Your task to perform on an android device: Open calendar and show me the second week of next month Image 0: 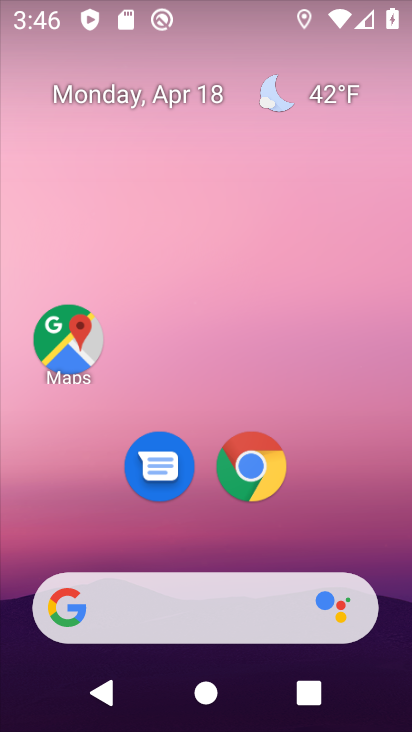
Step 0: drag from (399, 594) to (355, 172)
Your task to perform on an android device: Open calendar and show me the second week of next month Image 1: 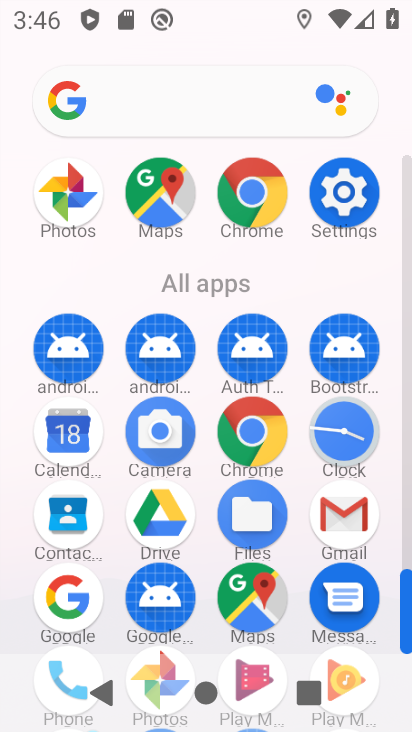
Step 1: click (66, 427)
Your task to perform on an android device: Open calendar and show me the second week of next month Image 2: 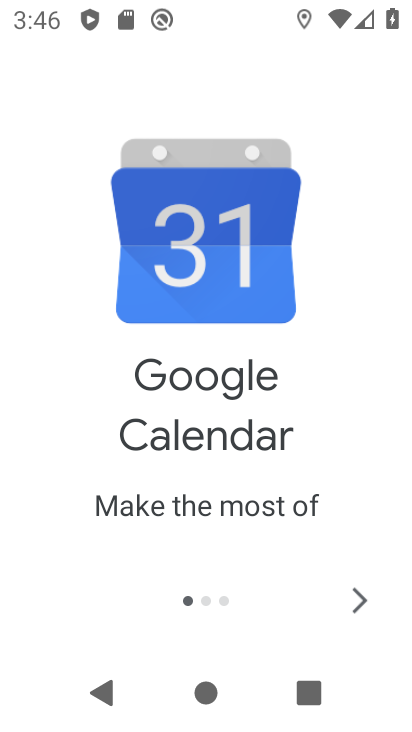
Step 2: click (359, 597)
Your task to perform on an android device: Open calendar and show me the second week of next month Image 3: 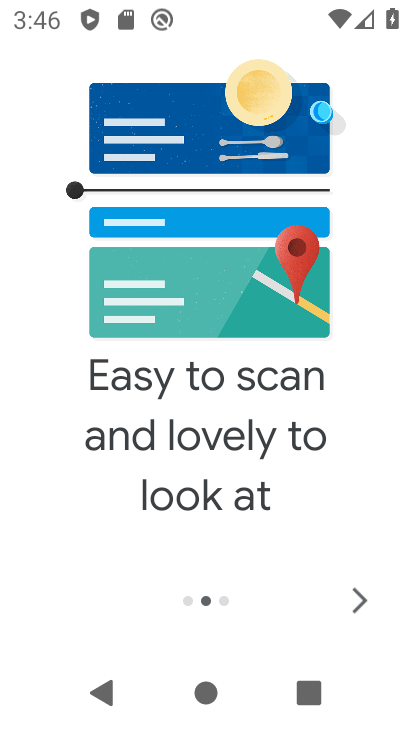
Step 3: click (359, 597)
Your task to perform on an android device: Open calendar and show me the second week of next month Image 4: 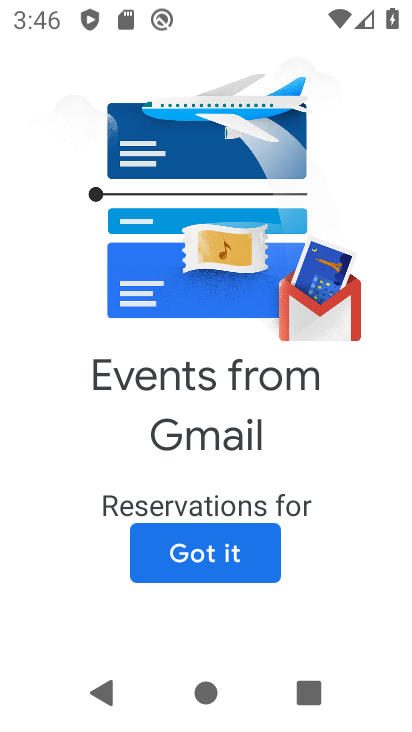
Step 4: click (190, 554)
Your task to perform on an android device: Open calendar and show me the second week of next month Image 5: 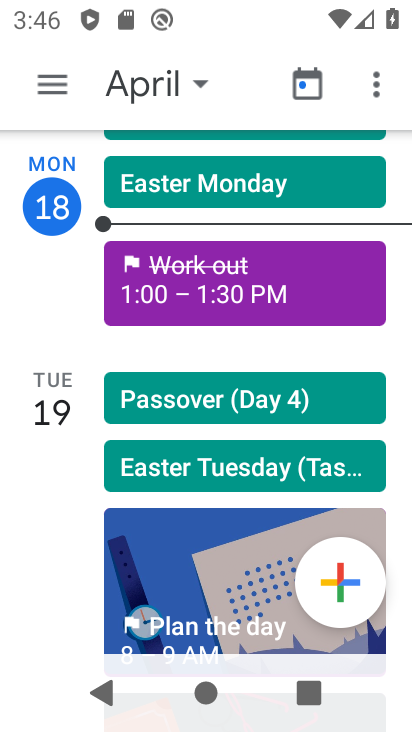
Step 5: click (52, 84)
Your task to perform on an android device: Open calendar and show me the second week of next month Image 6: 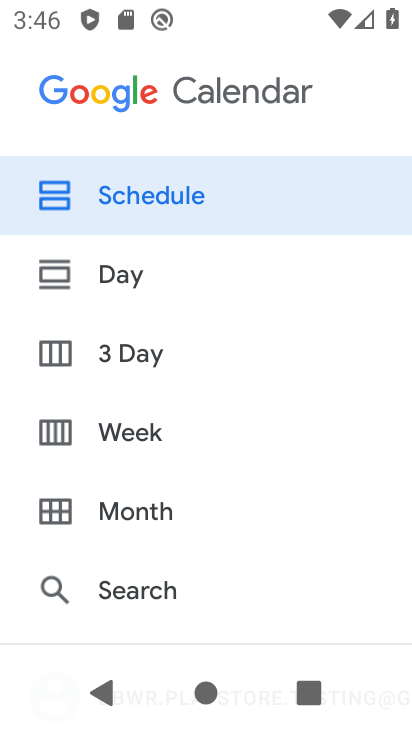
Step 6: click (123, 430)
Your task to perform on an android device: Open calendar and show me the second week of next month Image 7: 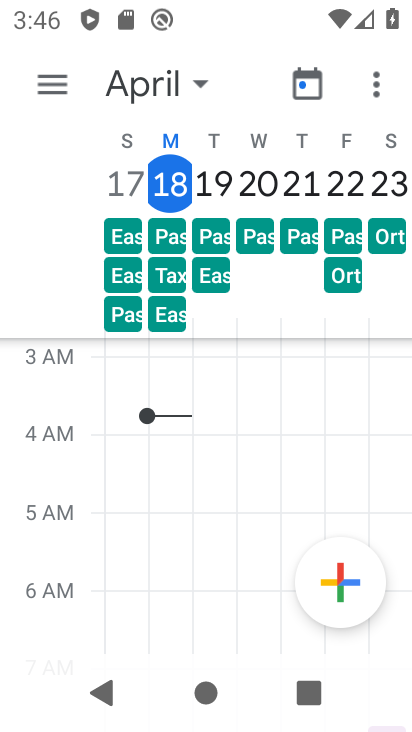
Step 7: click (198, 81)
Your task to perform on an android device: Open calendar and show me the second week of next month Image 8: 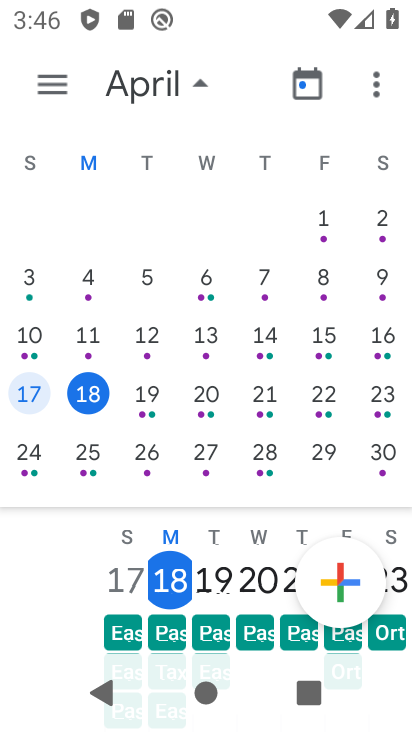
Step 8: drag from (375, 353) to (37, 354)
Your task to perform on an android device: Open calendar and show me the second week of next month Image 9: 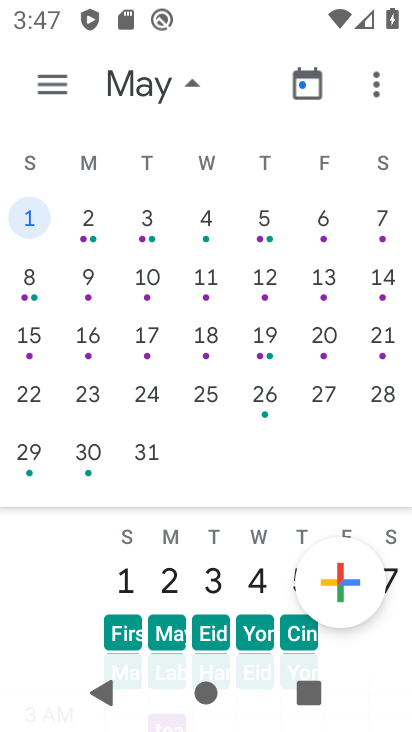
Step 9: click (33, 283)
Your task to perform on an android device: Open calendar and show me the second week of next month Image 10: 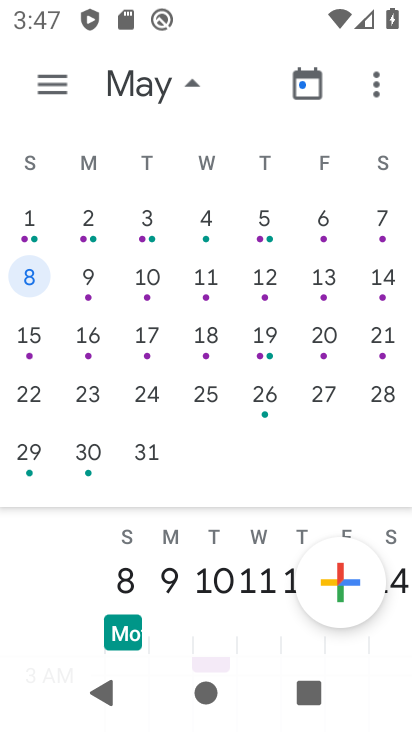
Step 10: task complete